Your task to perform on an android device: refresh tabs in the chrome app Image 0: 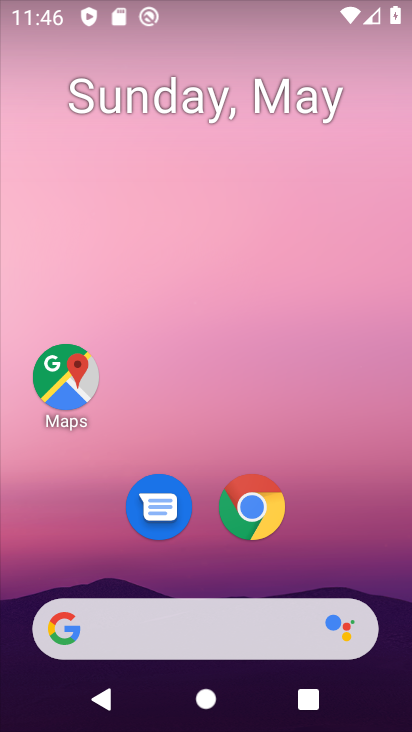
Step 0: click (247, 510)
Your task to perform on an android device: refresh tabs in the chrome app Image 1: 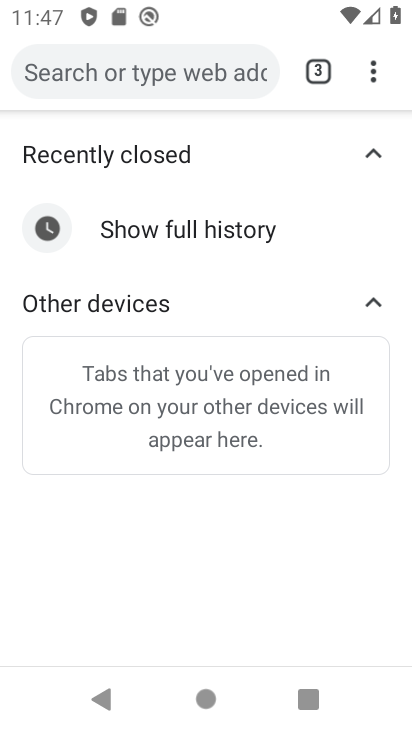
Step 1: click (374, 74)
Your task to perform on an android device: refresh tabs in the chrome app Image 2: 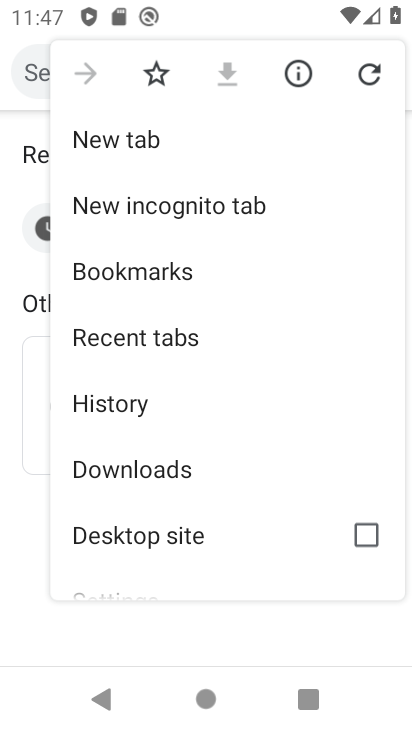
Step 2: click (354, 79)
Your task to perform on an android device: refresh tabs in the chrome app Image 3: 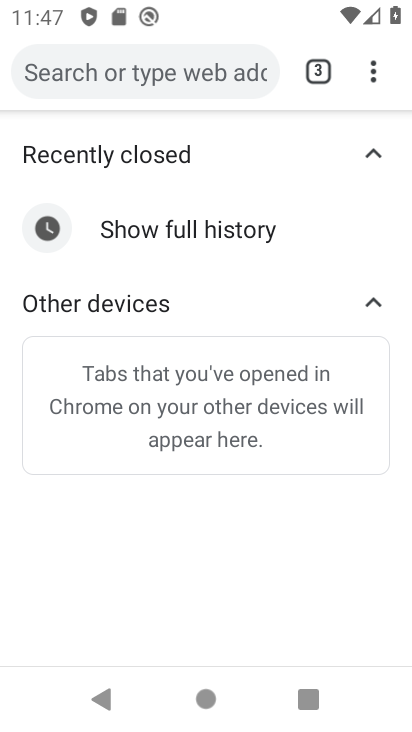
Step 3: task complete